Your task to perform on an android device: change keyboard looks Image 0: 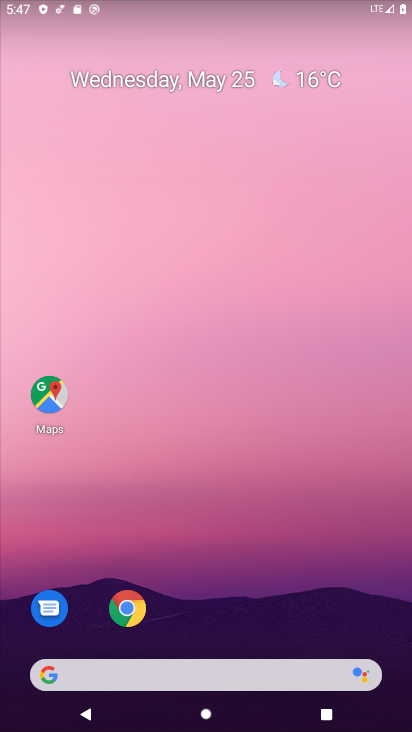
Step 0: drag from (105, 680) to (140, 40)
Your task to perform on an android device: change keyboard looks Image 1: 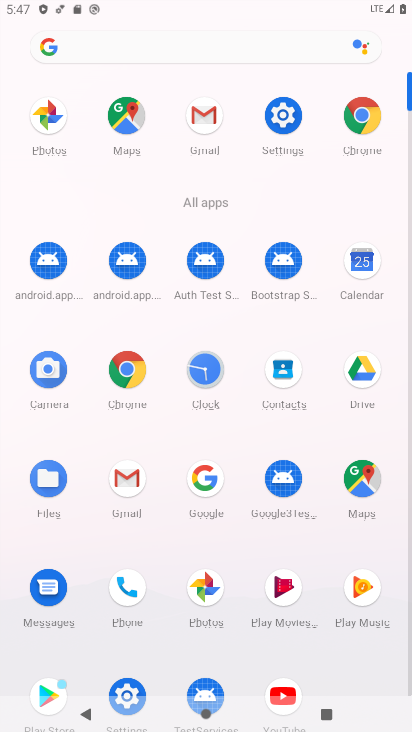
Step 1: click (277, 126)
Your task to perform on an android device: change keyboard looks Image 2: 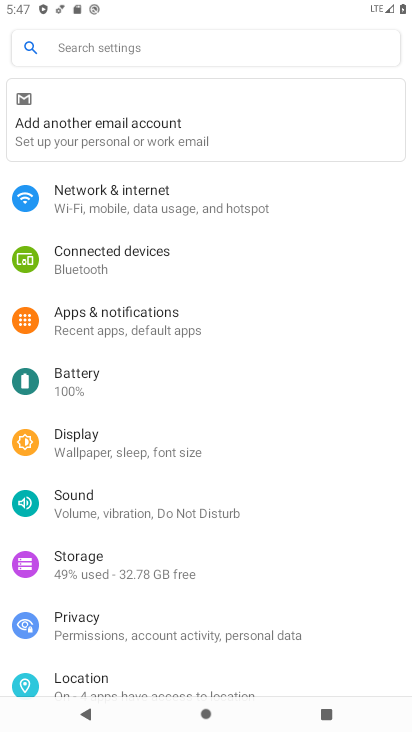
Step 2: drag from (191, 624) to (177, 156)
Your task to perform on an android device: change keyboard looks Image 3: 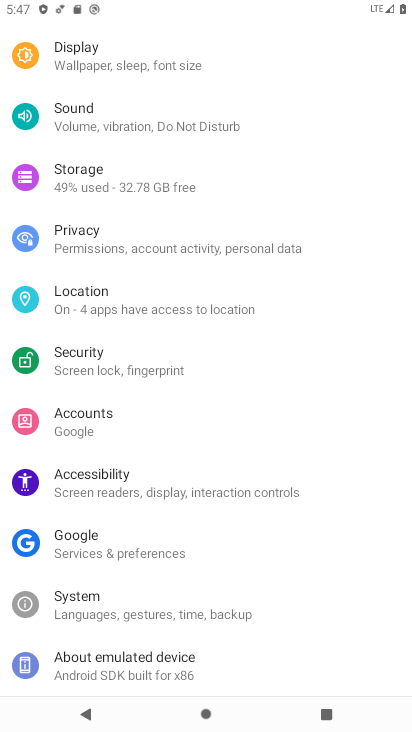
Step 3: click (94, 608)
Your task to perform on an android device: change keyboard looks Image 4: 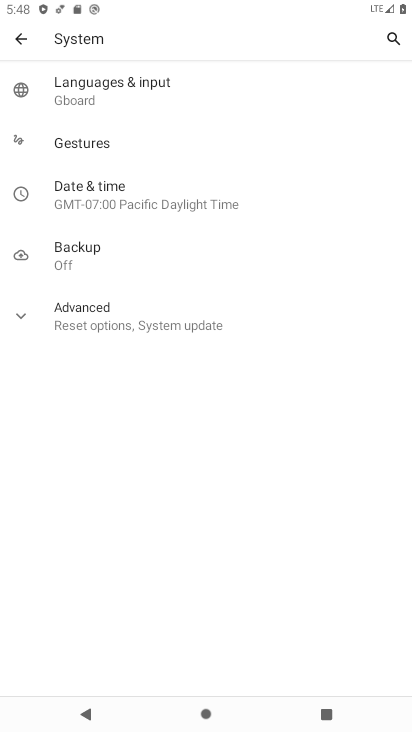
Step 4: click (126, 81)
Your task to perform on an android device: change keyboard looks Image 5: 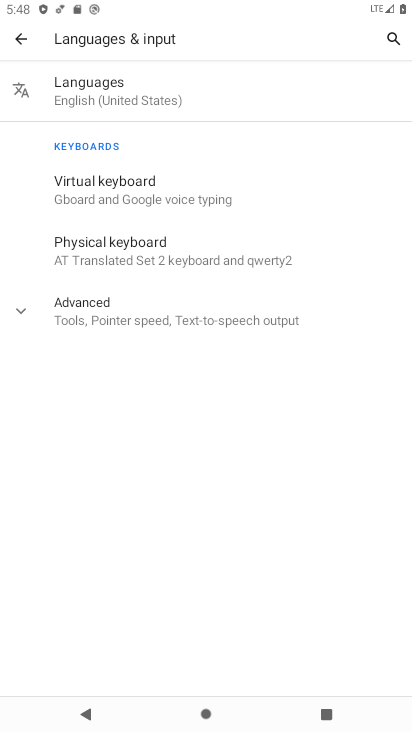
Step 5: click (141, 193)
Your task to perform on an android device: change keyboard looks Image 6: 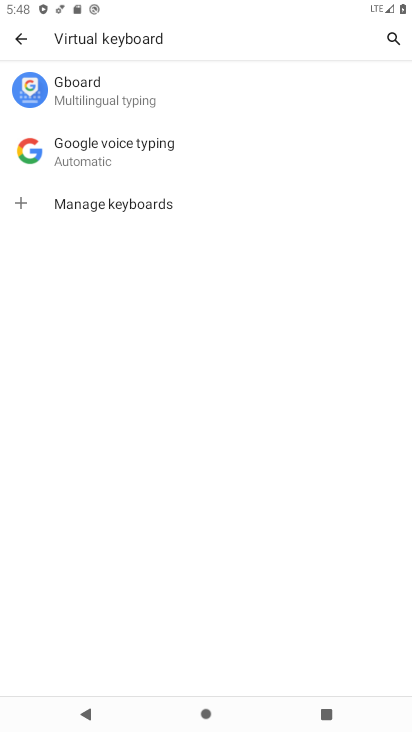
Step 6: click (116, 88)
Your task to perform on an android device: change keyboard looks Image 7: 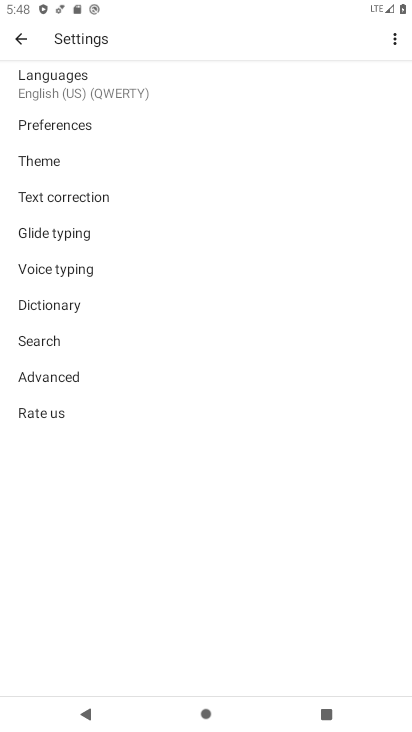
Step 7: click (80, 159)
Your task to perform on an android device: change keyboard looks Image 8: 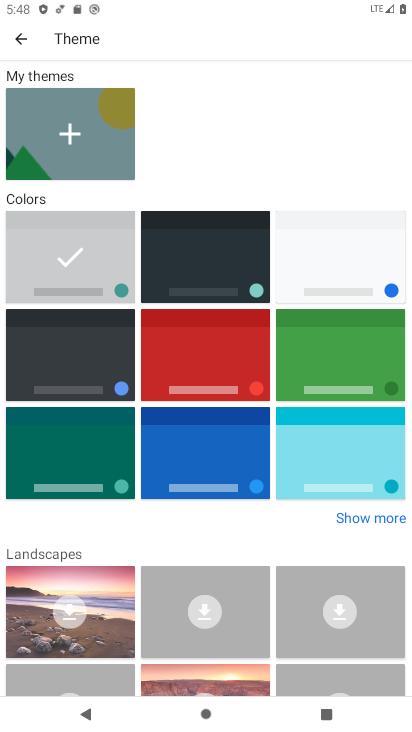
Step 8: click (80, 158)
Your task to perform on an android device: change keyboard looks Image 9: 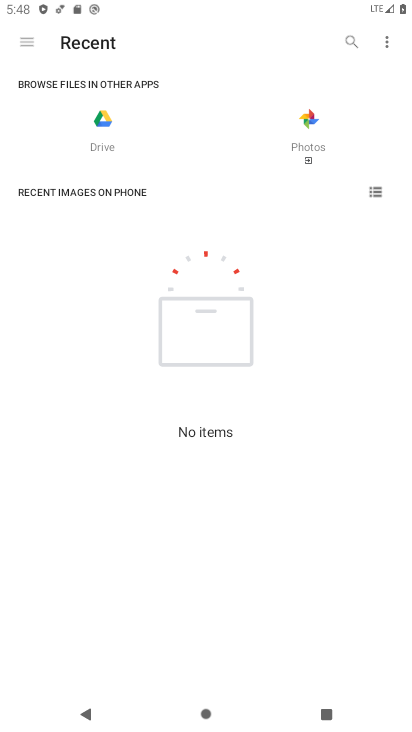
Step 9: press back button
Your task to perform on an android device: change keyboard looks Image 10: 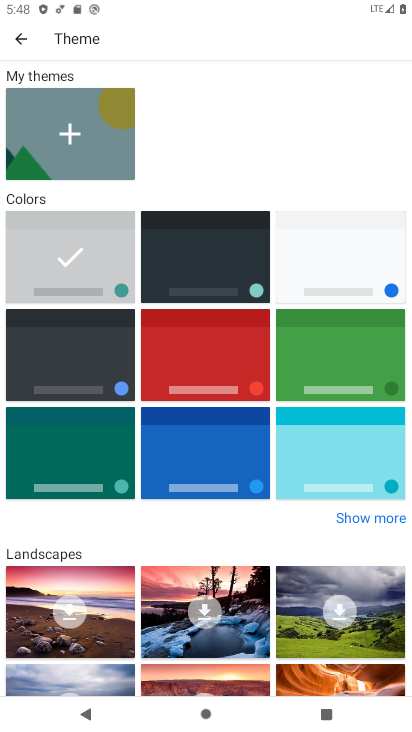
Step 10: click (211, 335)
Your task to perform on an android device: change keyboard looks Image 11: 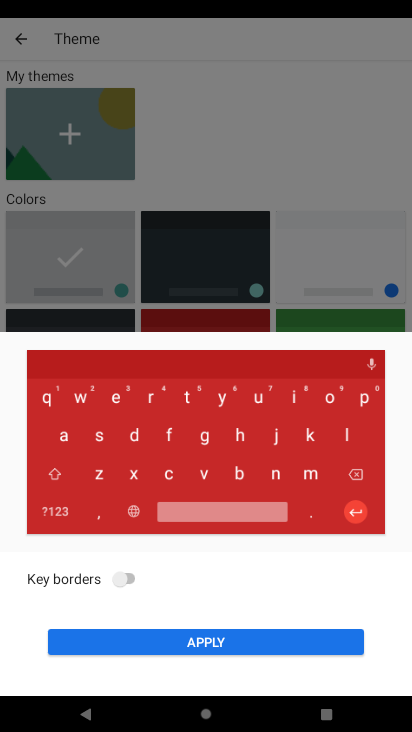
Step 11: click (196, 639)
Your task to perform on an android device: change keyboard looks Image 12: 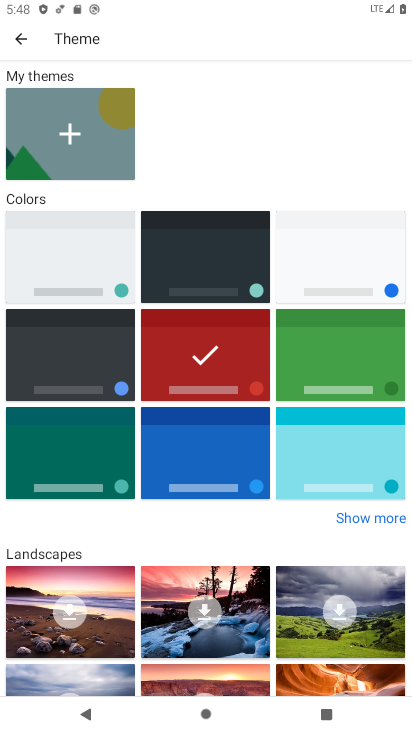
Step 12: task complete